Your task to perform on an android device: all mails in gmail Image 0: 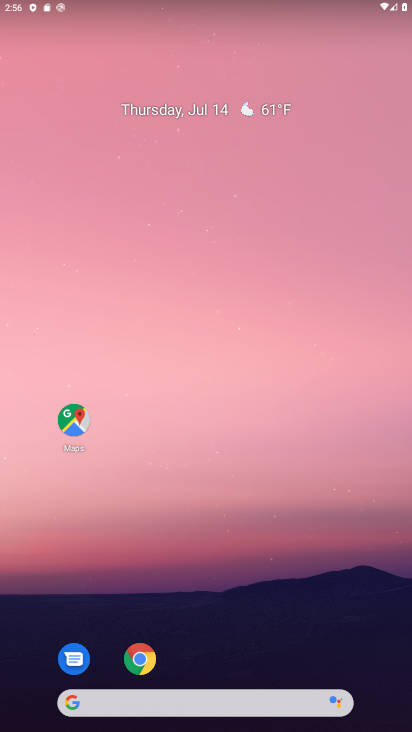
Step 0: drag from (219, 700) to (342, 294)
Your task to perform on an android device: all mails in gmail Image 1: 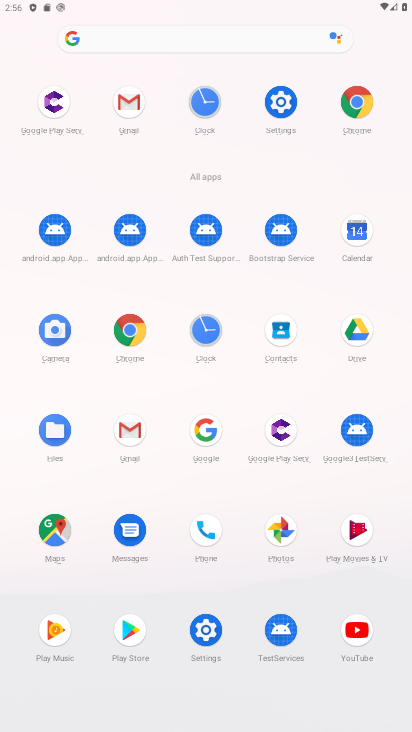
Step 1: click (130, 428)
Your task to perform on an android device: all mails in gmail Image 2: 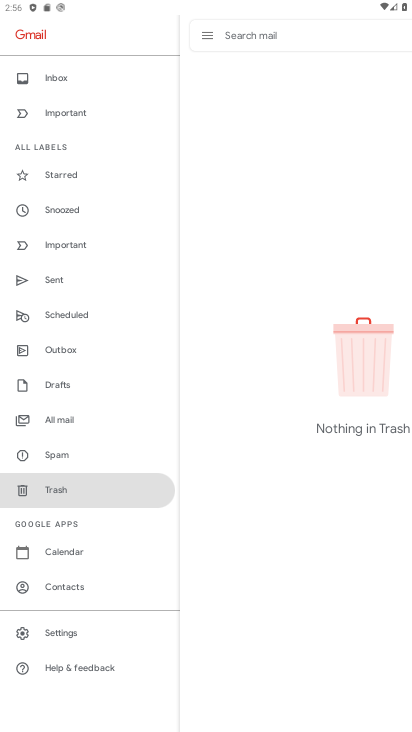
Step 2: click (66, 411)
Your task to perform on an android device: all mails in gmail Image 3: 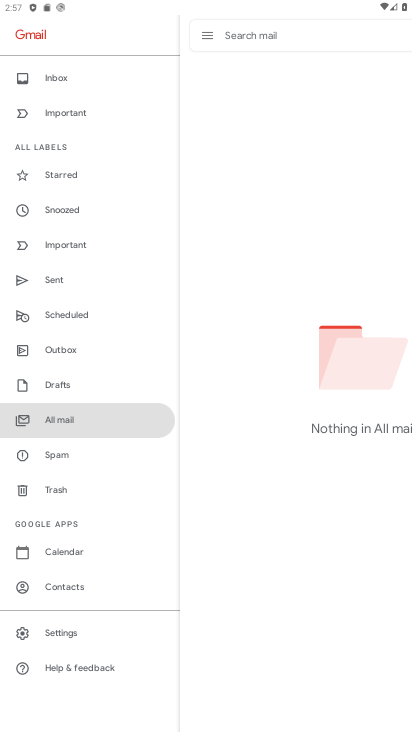
Step 3: task complete